Your task to perform on an android device: Go to Reddit.com Image 0: 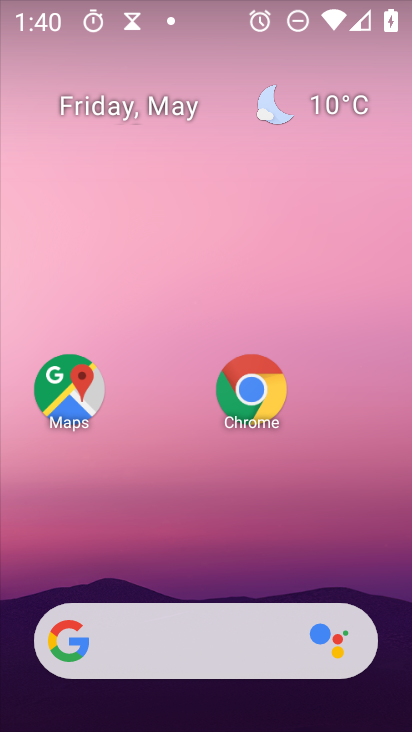
Step 0: drag from (175, 653) to (360, 48)
Your task to perform on an android device: Go to Reddit.com Image 1: 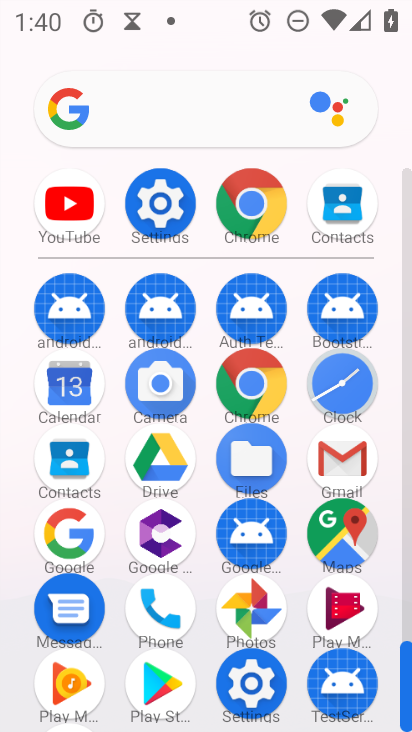
Step 1: click (252, 220)
Your task to perform on an android device: Go to Reddit.com Image 2: 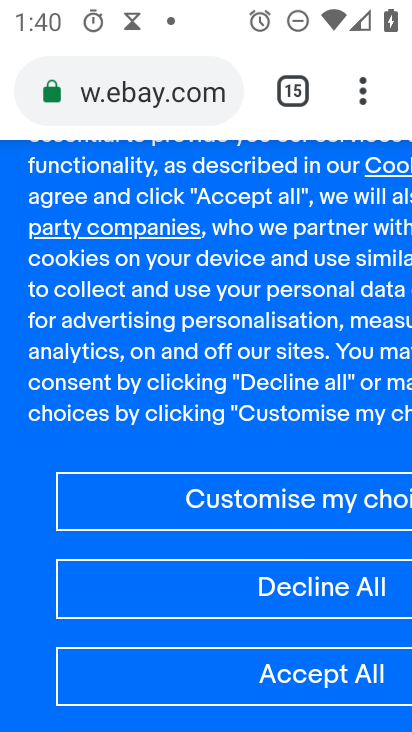
Step 2: drag from (359, 94) to (225, 181)
Your task to perform on an android device: Go to Reddit.com Image 3: 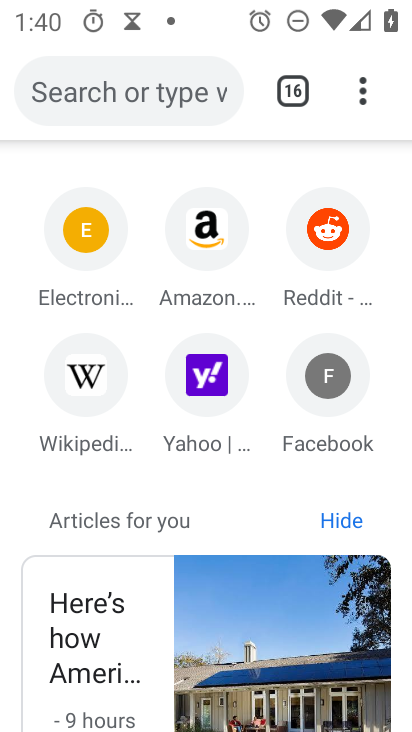
Step 3: click (160, 96)
Your task to perform on an android device: Go to Reddit.com Image 4: 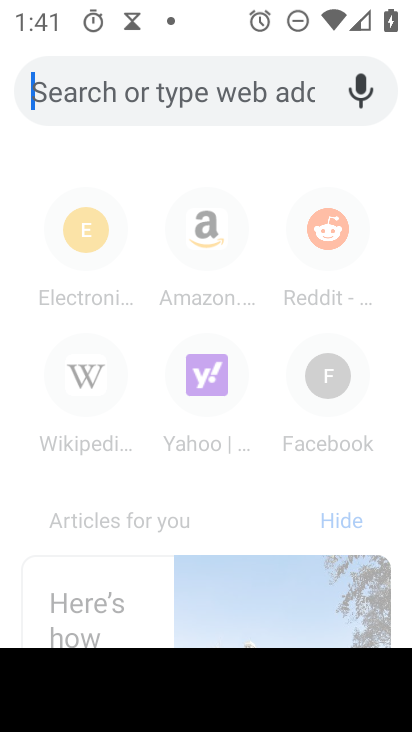
Step 4: type "reddit.com"
Your task to perform on an android device: Go to Reddit.com Image 5: 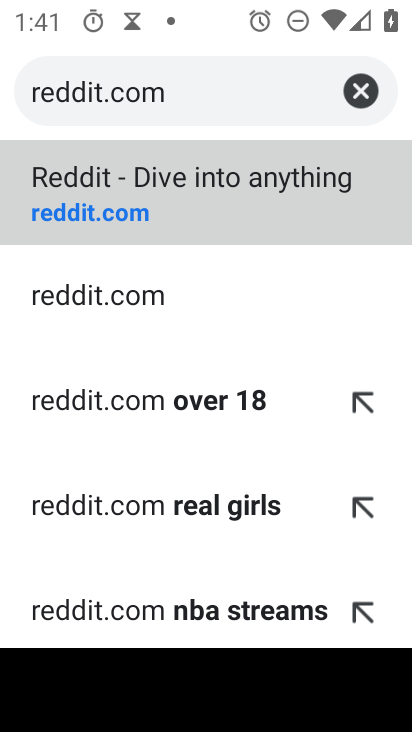
Step 5: click (97, 169)
Your task to perform on an android device: Go to Reddit.com Image 6: 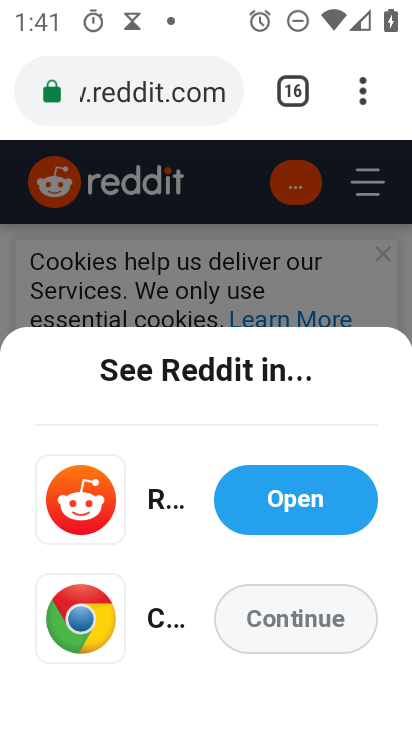
Step 6: task complete